Your task to perform on an android device: search for starred emails in the gmail app Image 0: 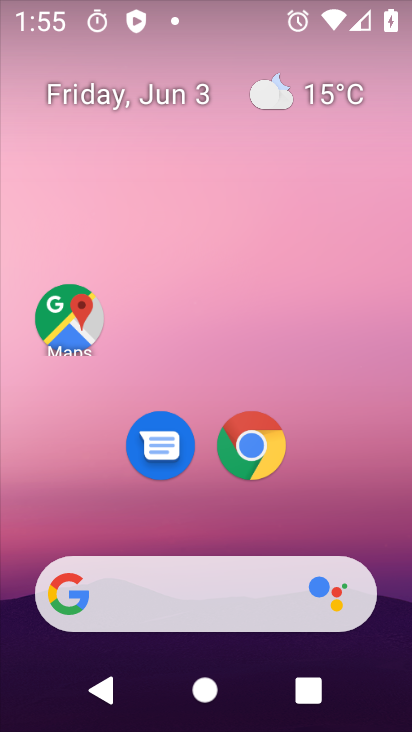
Step 0: drag from (167, 564) to (259, 153)
Your task to perform on an android device: search for starred emails in the gmail app Image 1: 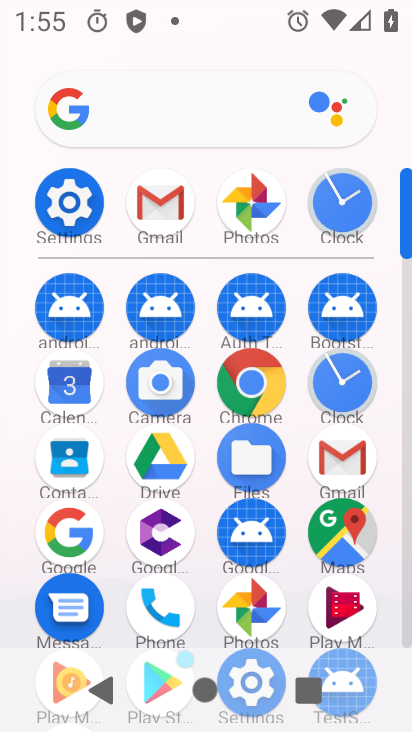
Step 1: click (165, 194)
Your task to perform on an android device: search for starred emails in the gmail app Image 2: 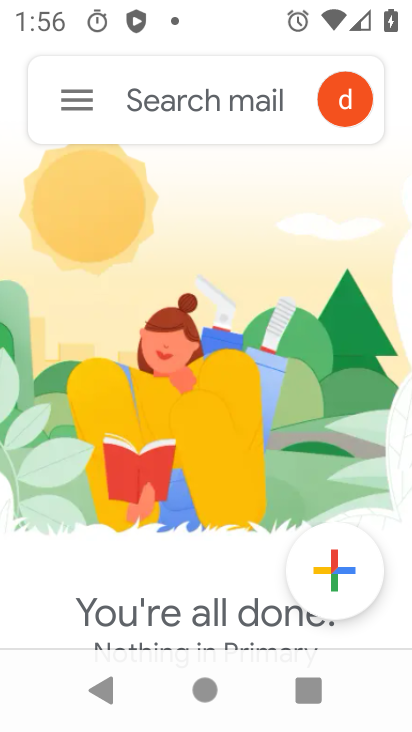
Step 2: click (70, 103)
Your task to perform on an android device: search for starred emails in the gmail app Image 3: 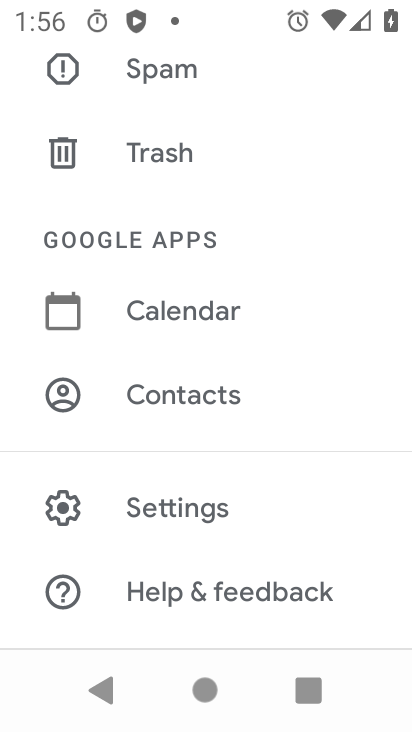
Step 3: drag from (145, 89) to (180, 408)
Your task to perform on an android device: search for starred emails in the gmail app Image 4: 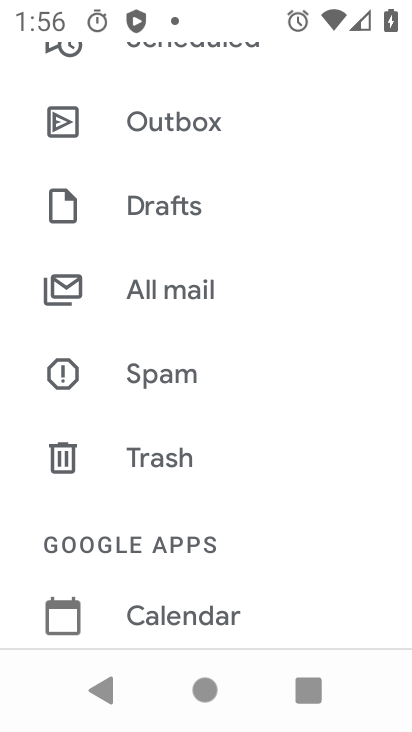
Step 4: drag from (170, 80) to (203, 403)
Your task to perform on an android device: search for starred emails in the gmail app Image 5: 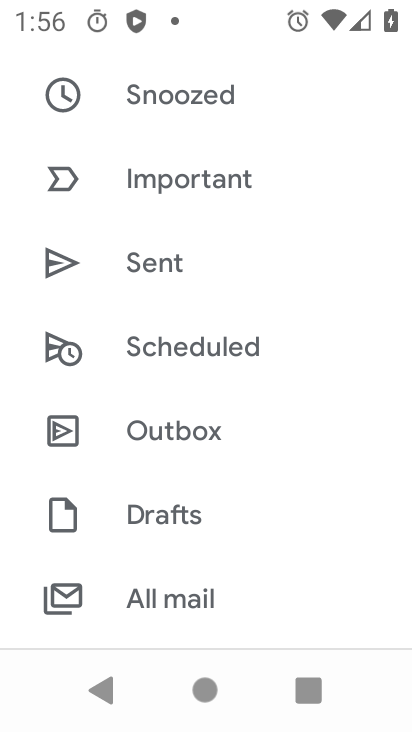
Step 5: drag from (146, 147) to (194, 434)
Your task to perform on an android device: search for starred emails in the gmail app Image 6: 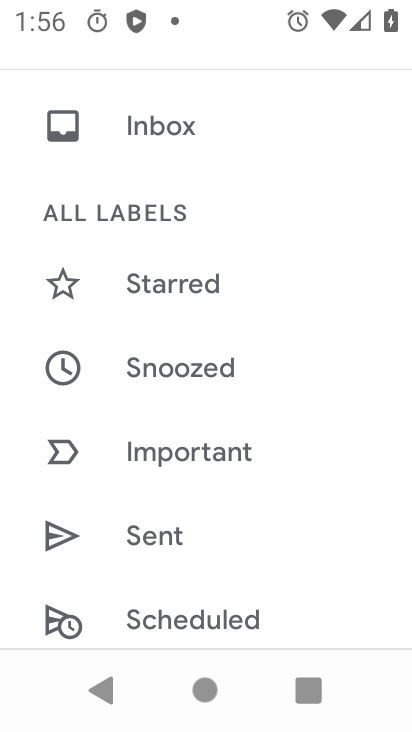
Step 6: click (178, 305)
Your task to perform on an android device: search for starred emails in the gmail app Image 7: 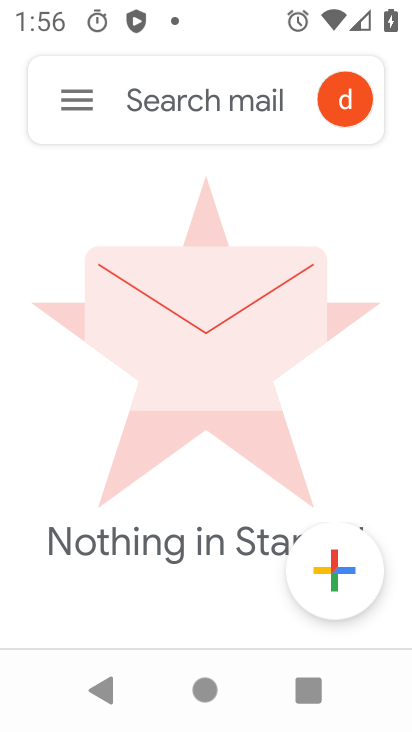
Step 7: task complete